Your task to perform on an android device: Go to display settings Image 0: 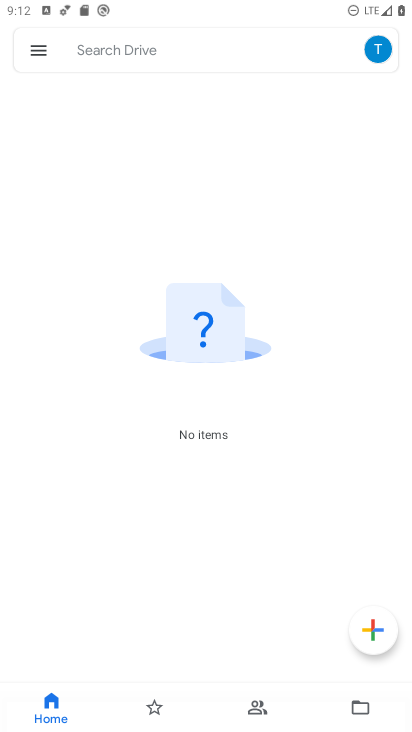
Step 0: press home button
Your task to perform on an android device: Go to display settings Image 1: 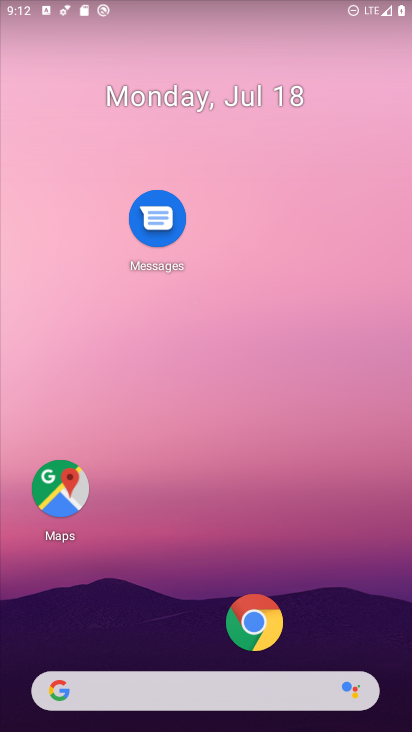
Step 1: drag from (335, 606) to (371, 197)
Your task to perform on an android device: Go to display settings Image 2: 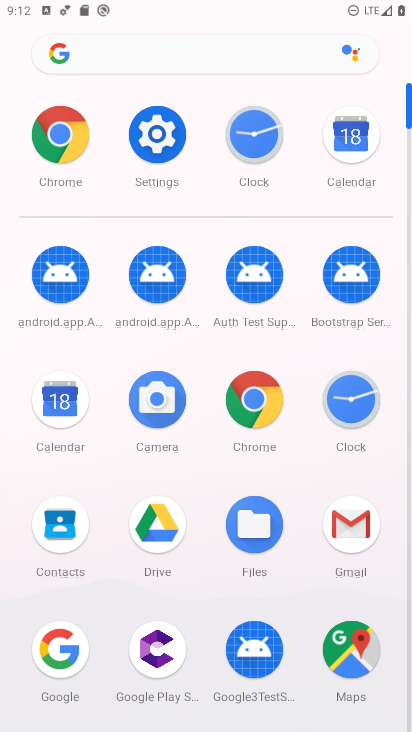
Step 2: click (154, 150)
Your task to perform on an android device: Go to display settings Image 3: 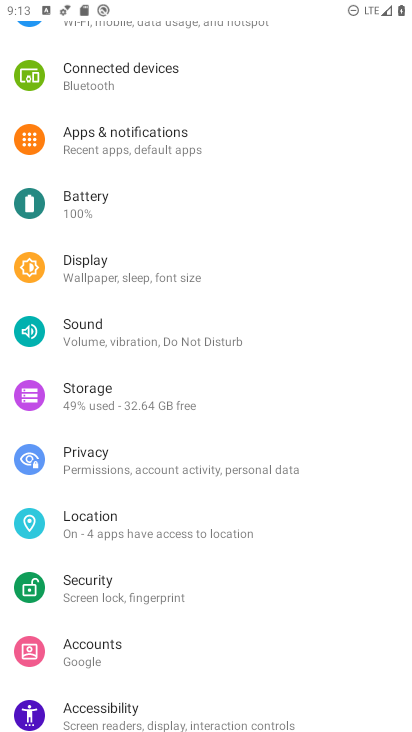
Step 3: click (134, 276)
Your task to perform on an android device: Go to display settings Image 4: 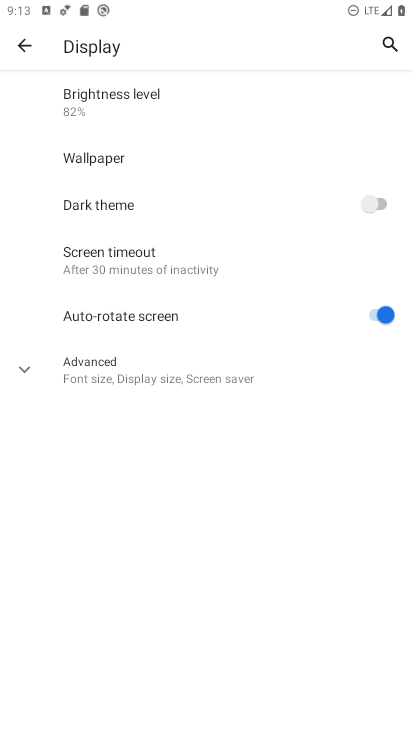
Step 4: click (121, 366)
Your task to perform on an android device: Go to display settings Image 5: 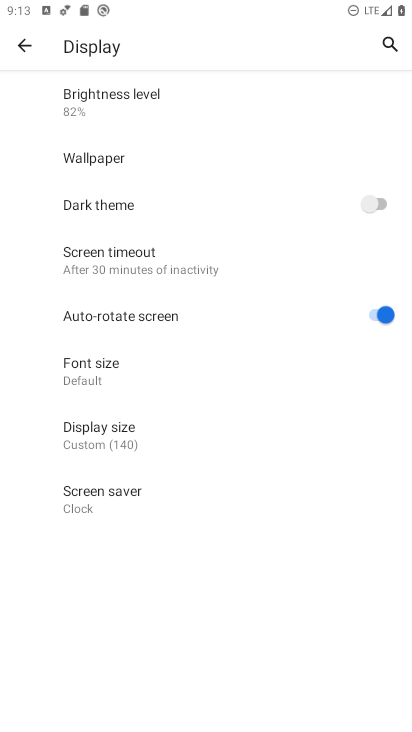
Step 5: task complete